Your task to perform on an android device: toggle wifi Image 0: 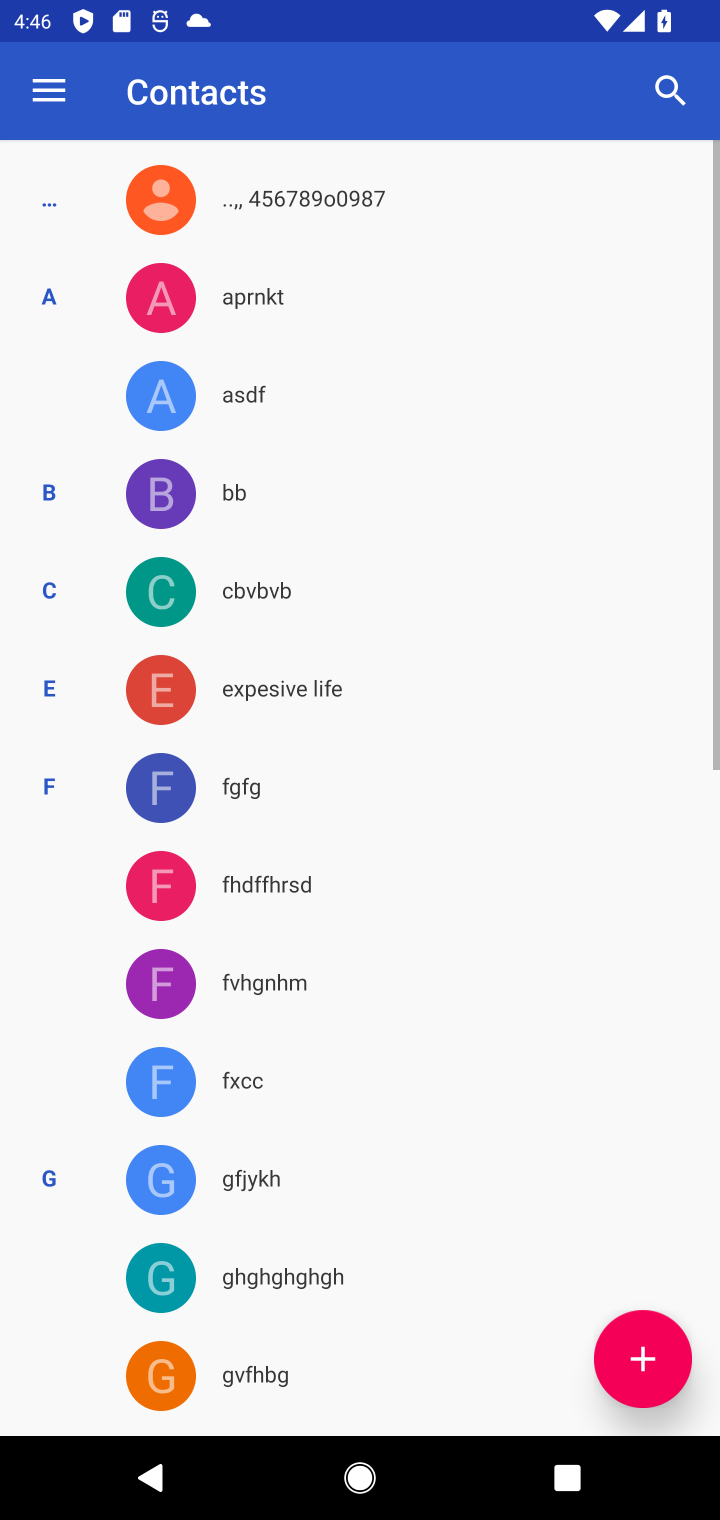
Step 0: press home button
Your task to perform on an android device: toggle wifi Image 1: 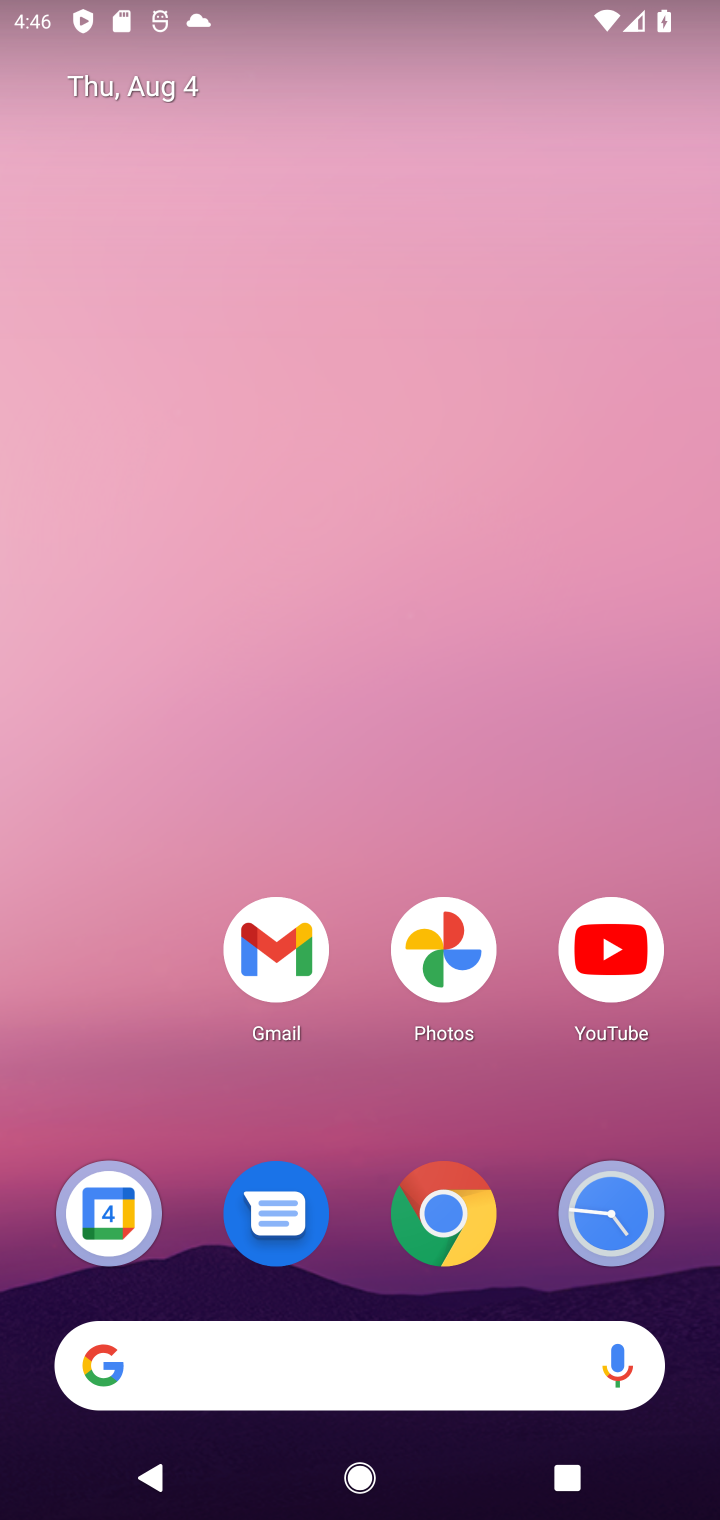
Step 1: drag from (177, 1096) to (179, 330)
Your task to perform on an android device: toggle wifi Image 2: 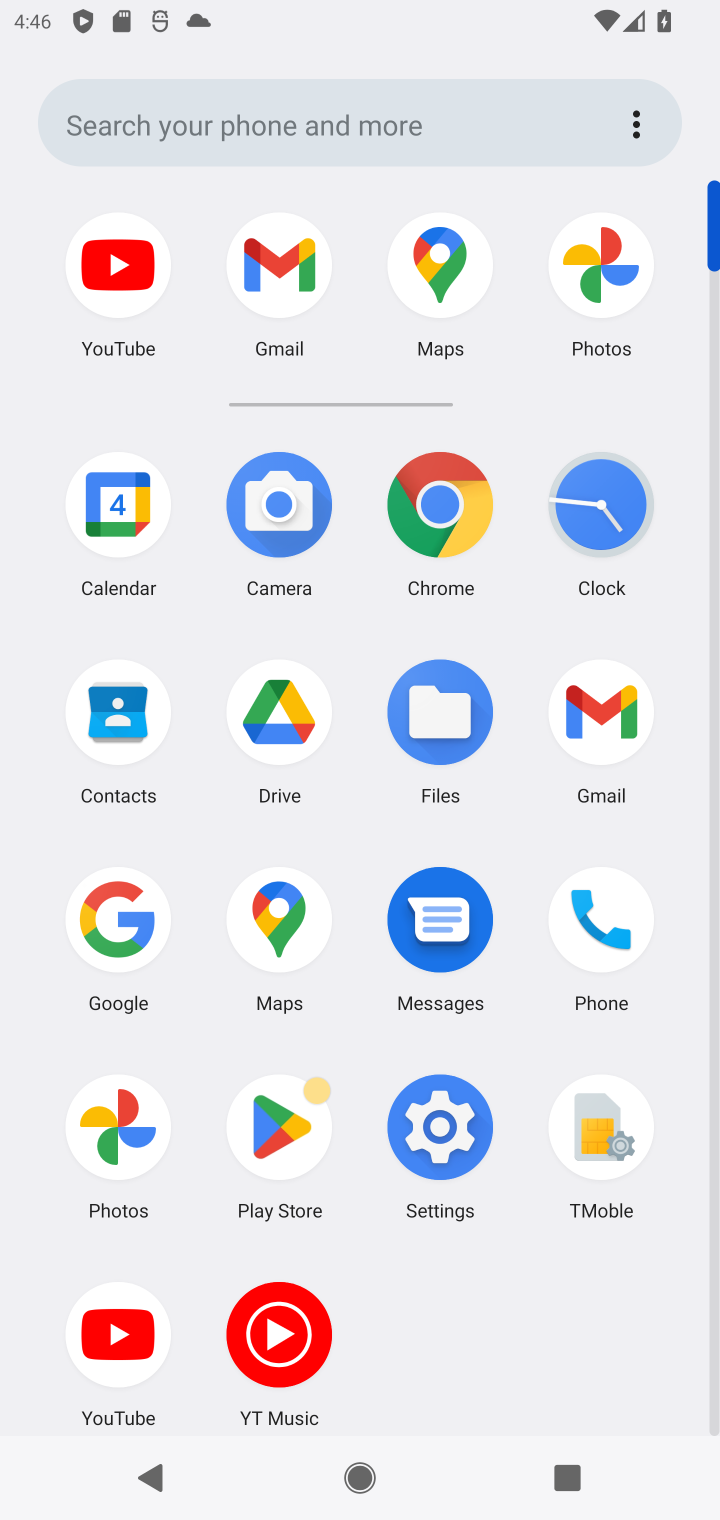
Step 2: click (456, 1152)
Your task to perform on an android device: toggle wifi Image 3: 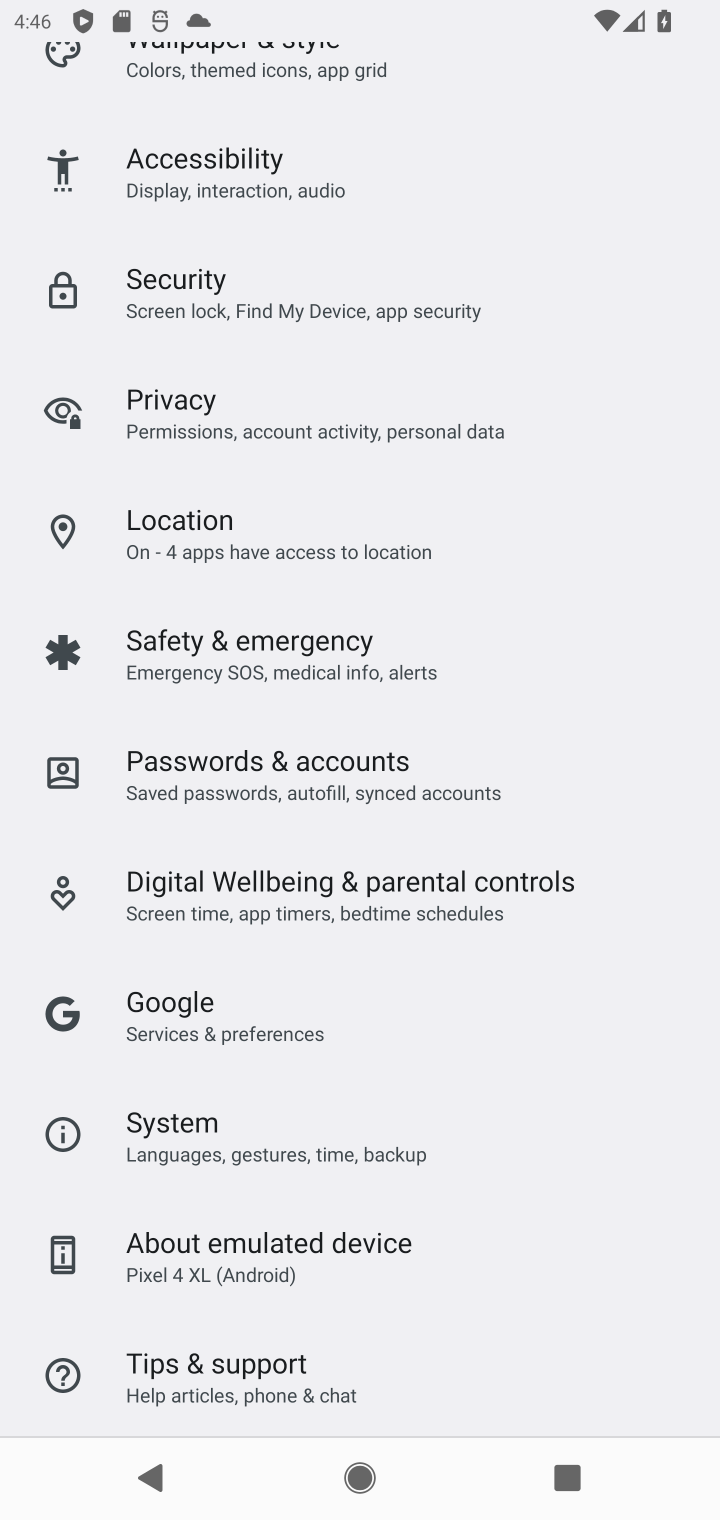
Step 3: drag from (542, 1183) to (566, 767)
Your task to perform on an android device: toggle wifi Image 4: 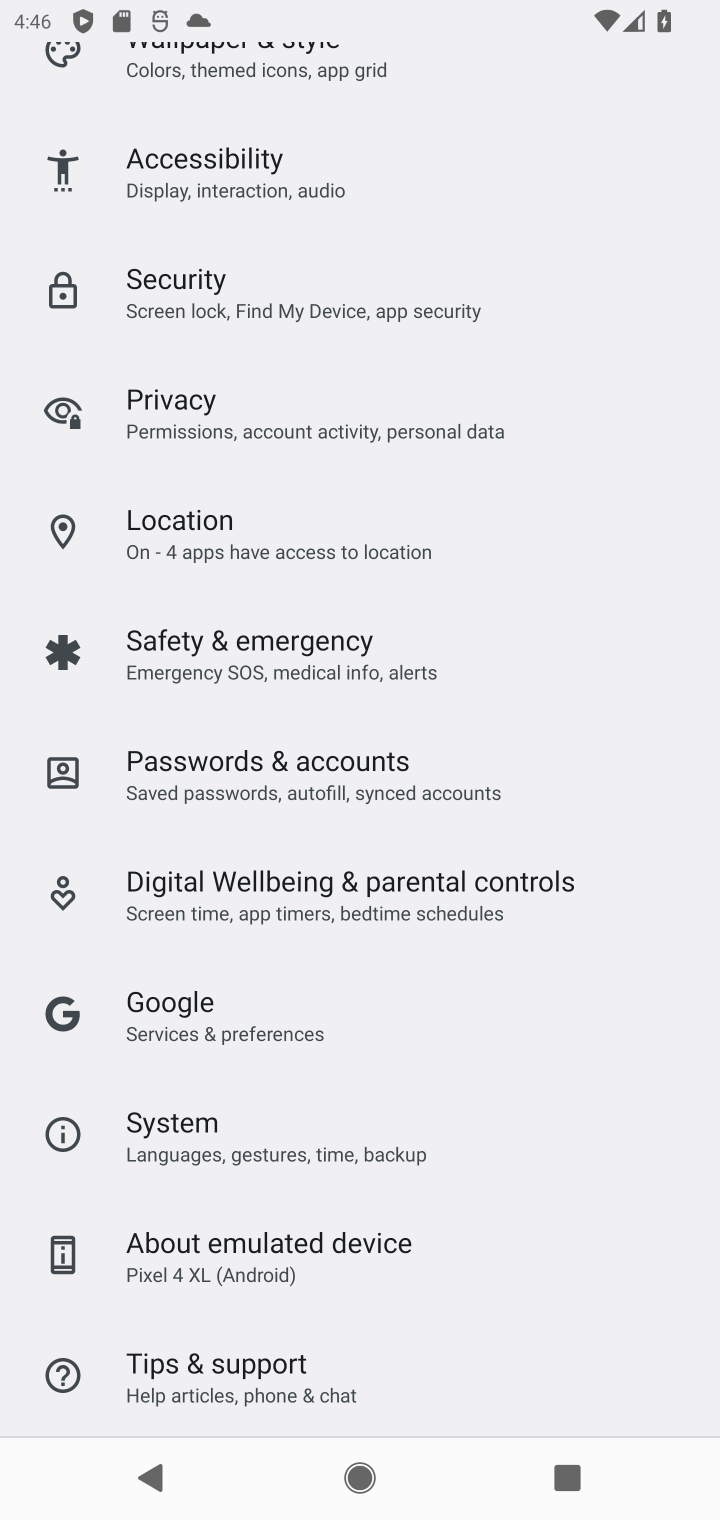
Step 4: drag from (542, 1190) to (543, 801)
Your task to perform on an android device: toggle wifi Image 5: 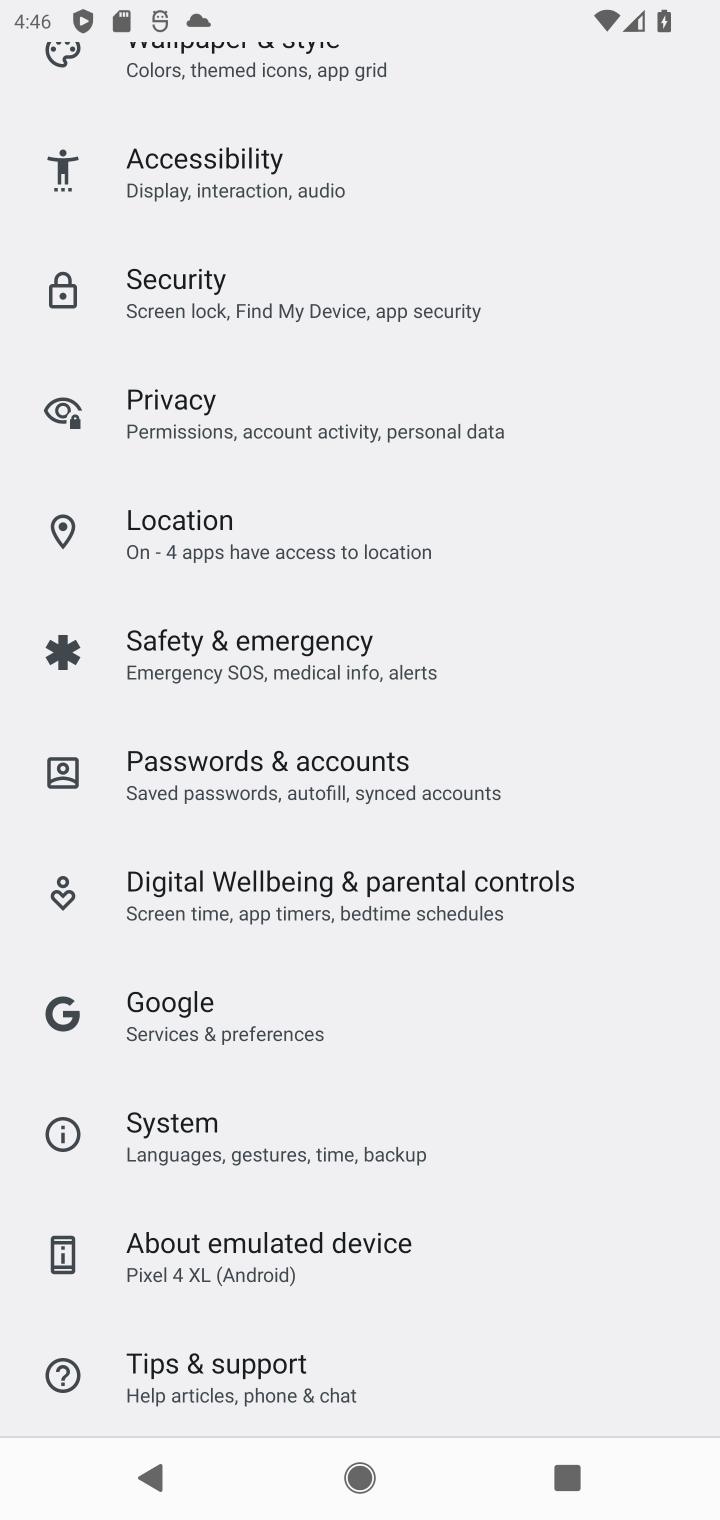
Step 5: drag from (531, 1203) to (537, 823)
Your task to perform on an android device: toggle wifi Image 6: 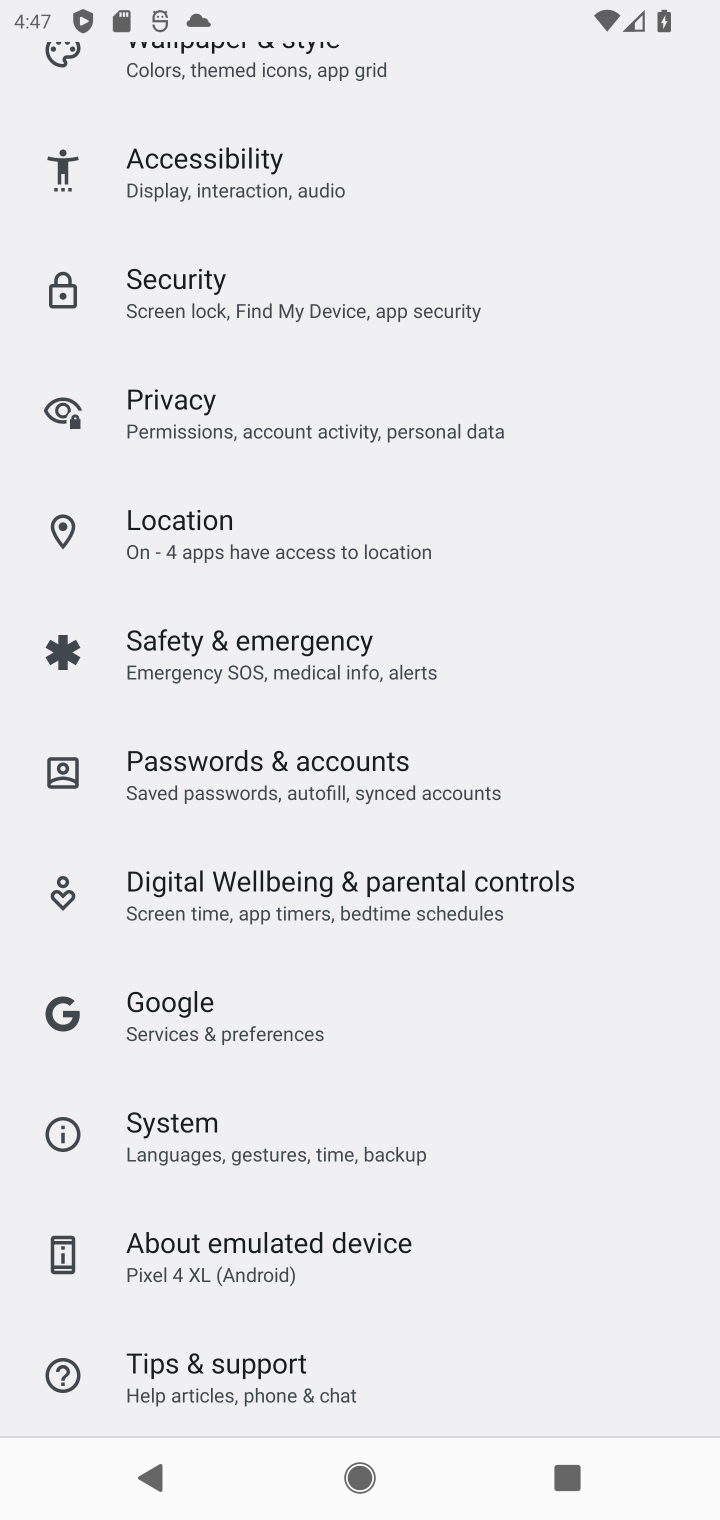
Step 6: drag from (570, 562) to (574, 910)
Your task to perform on an android device: toggle wifi Image 7: 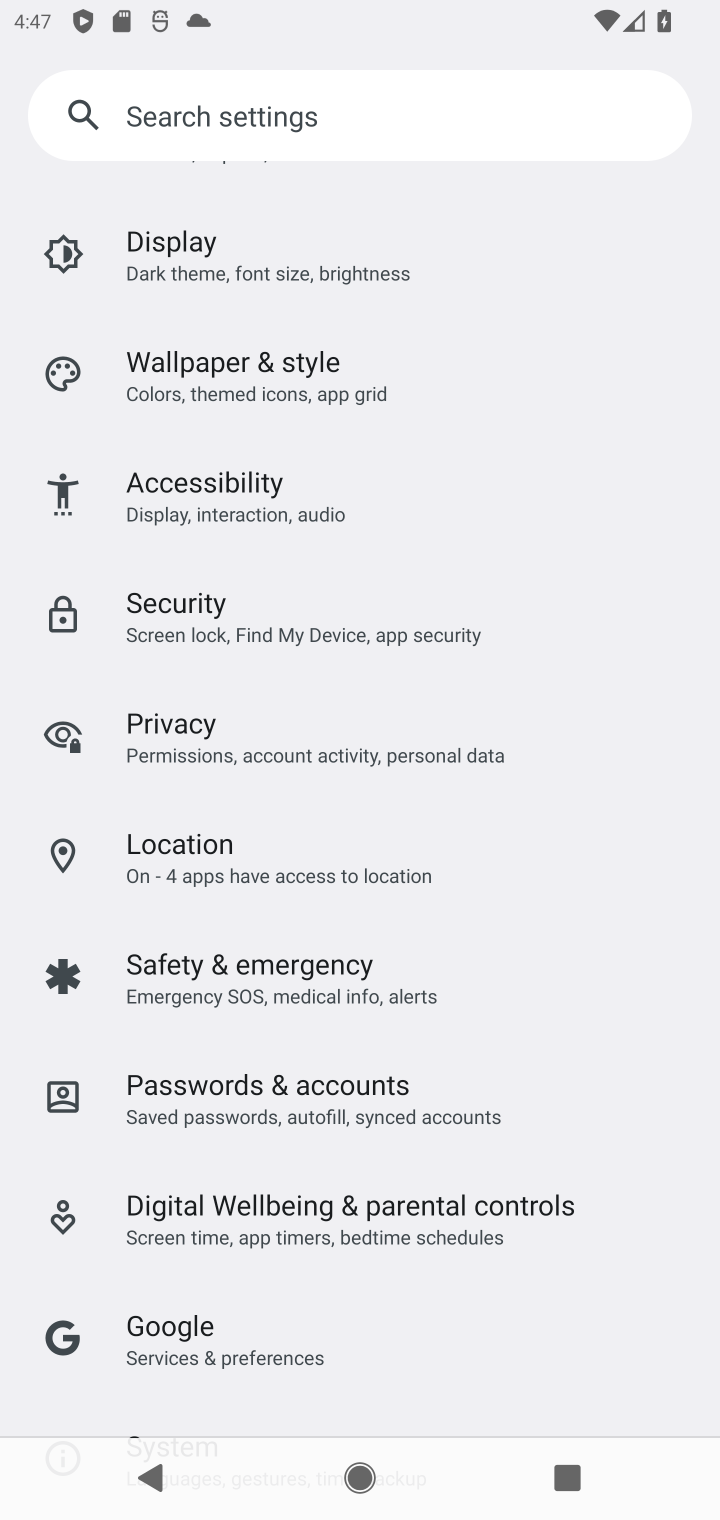
Step 7: drag from (578, 572) to (574, 980)
Your task to perform on an android device: toggle wifi Image 8: 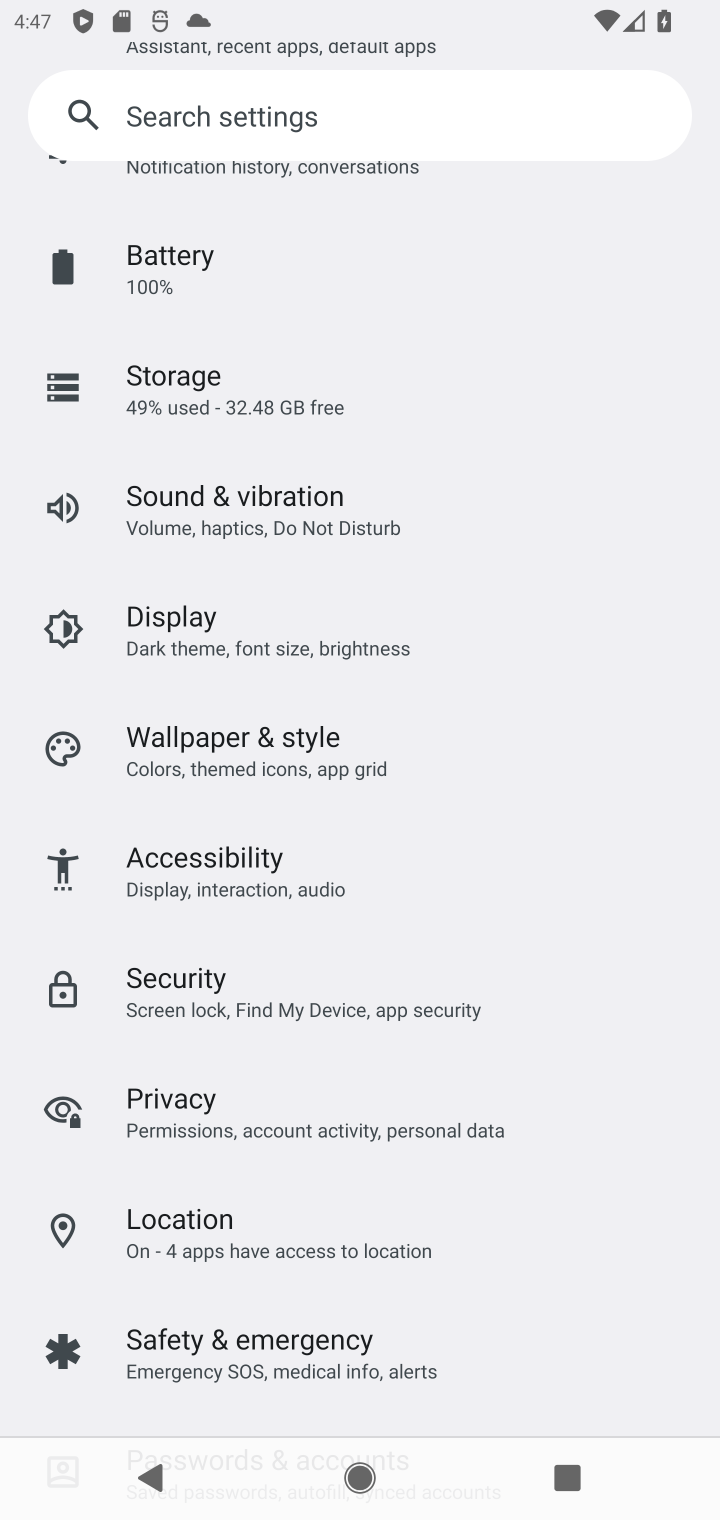
Step 8: drag from (599, 550) to (574, 910)
Your task to perform on an android device: toggle wifi Image 9: 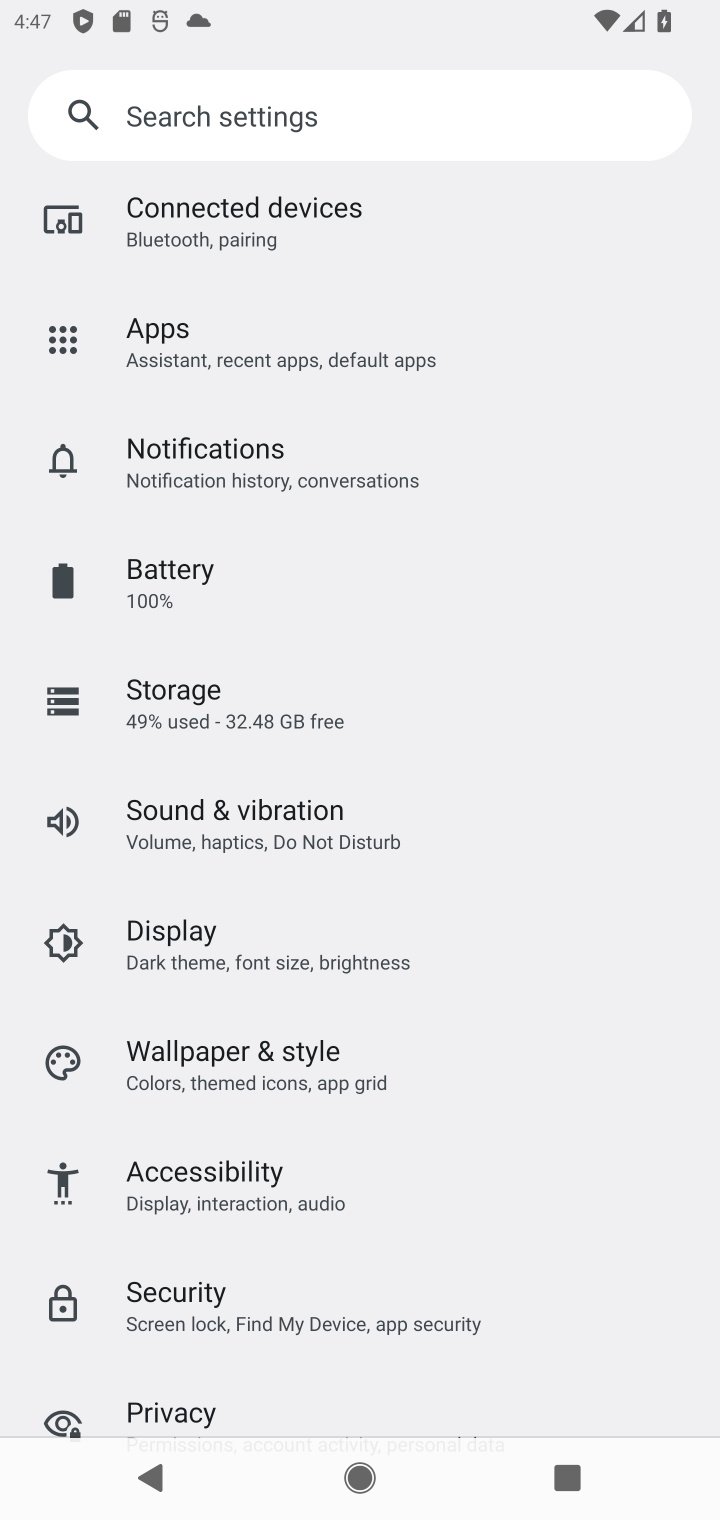
Step 9: drag from (555, 324) to (552, 710)
Your task to perform on an android device: toggle wifi Image 10: 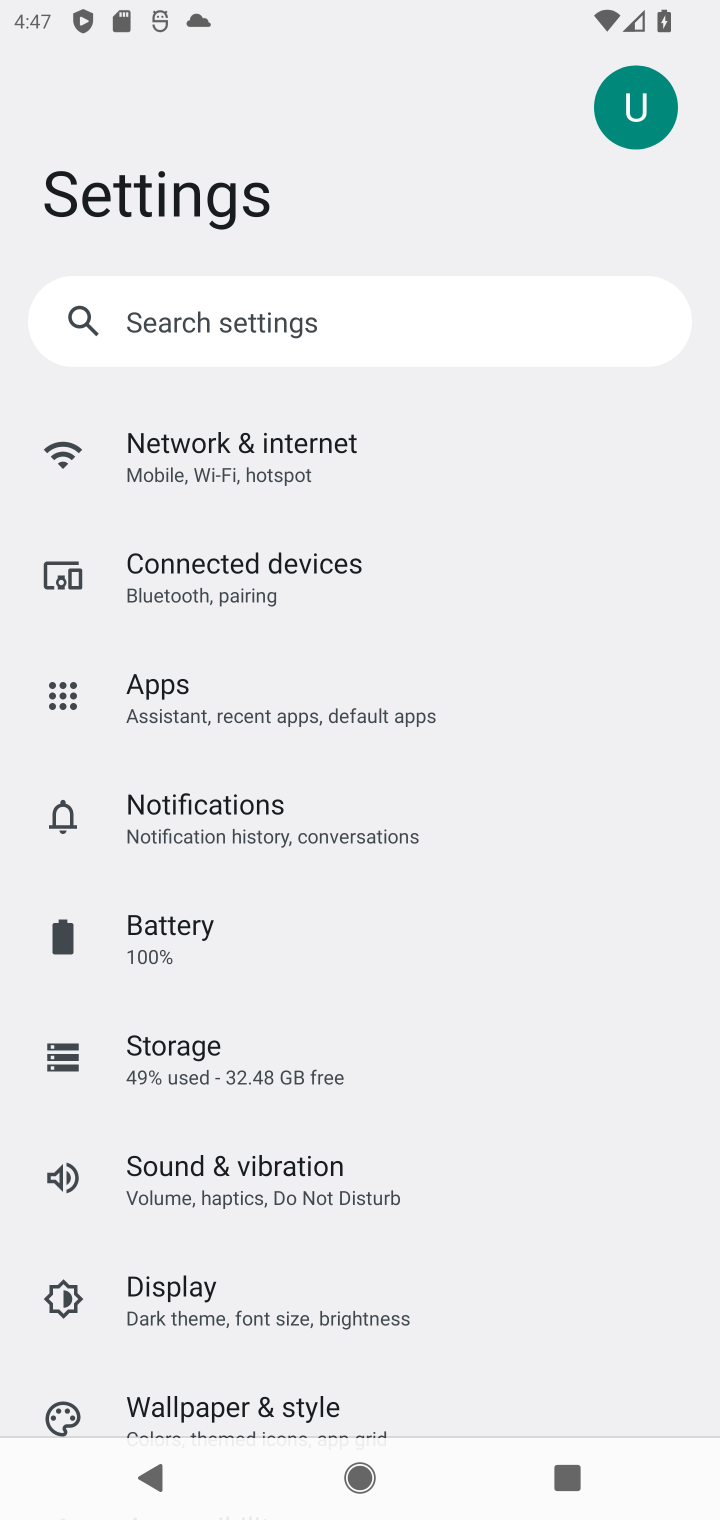
Step 10: click (386, 470)
Your task to perform on an android device: toggle wifi Image 11: 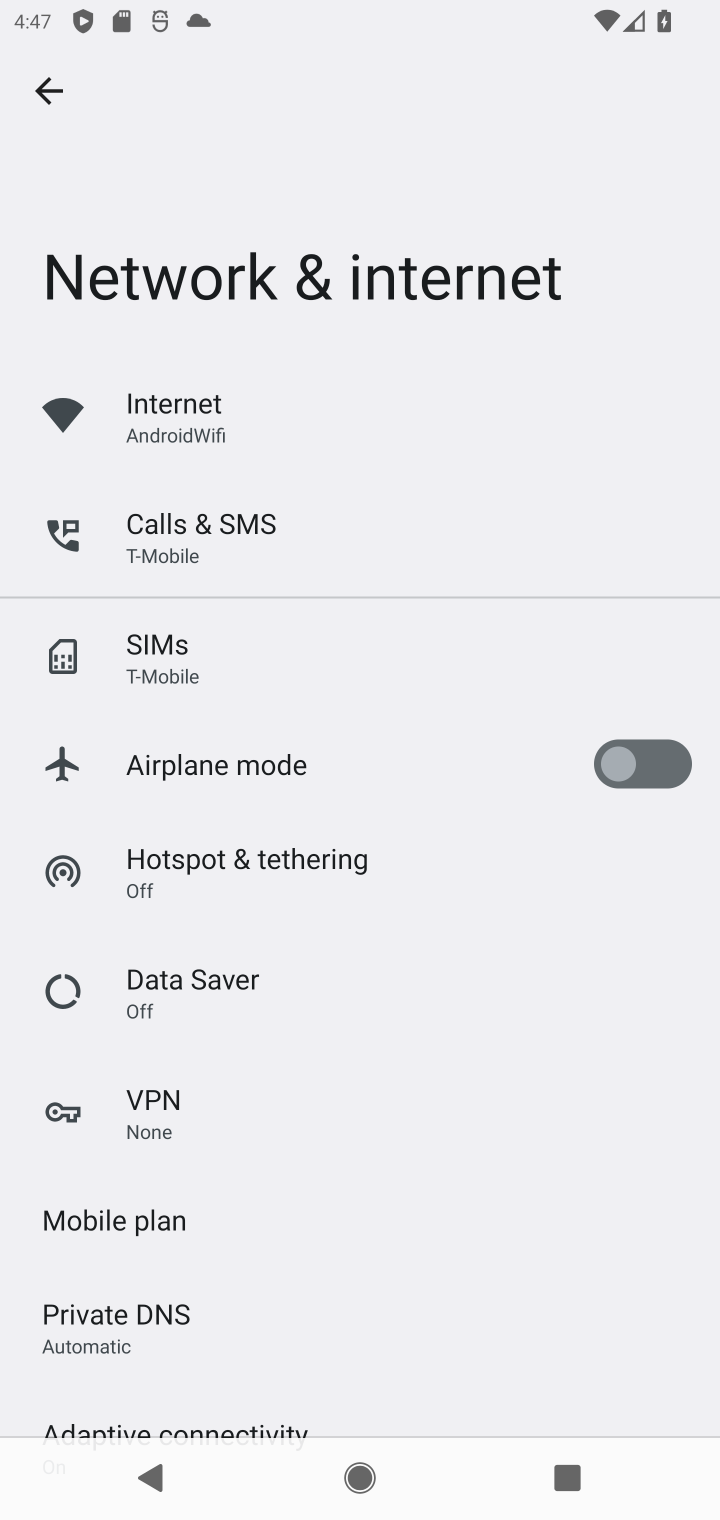
Step 11: click (267, 415)
Your task to perform on an android device: toggle wifi Image 12: 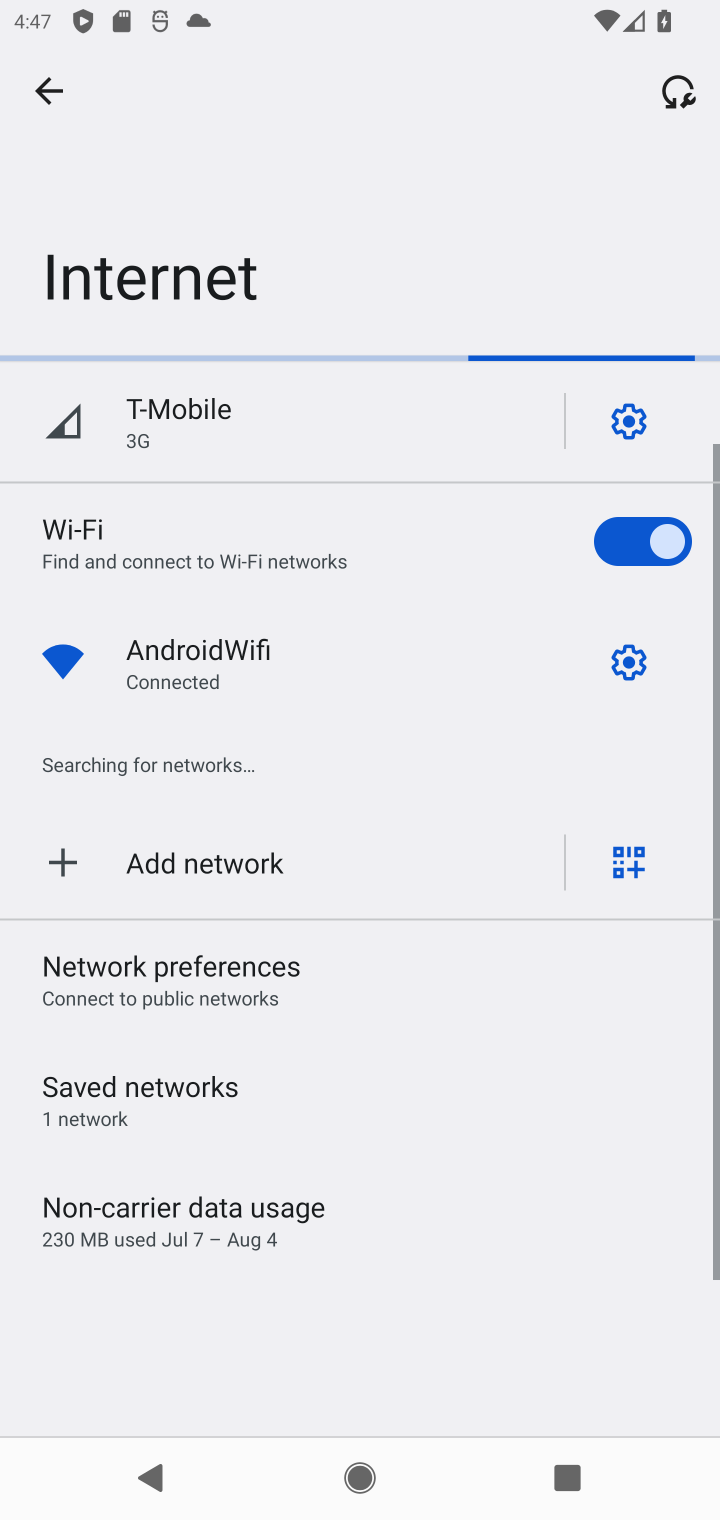
Step 12: click (625, 553)
Your task to perform on an android device: toggle wifi Image 13: 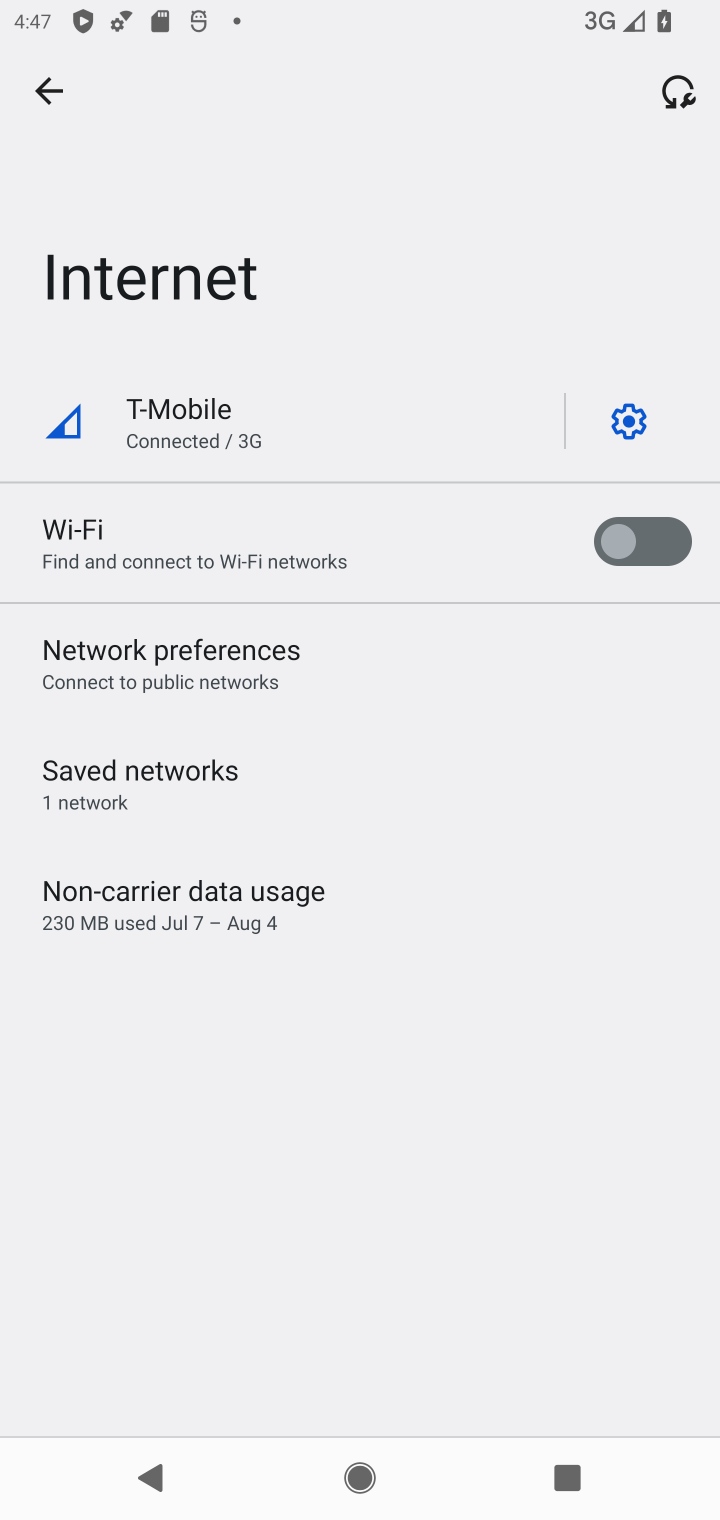
Step 13: task complete